Your task to perform on an android device: see creations saved in the google photos Image 0: 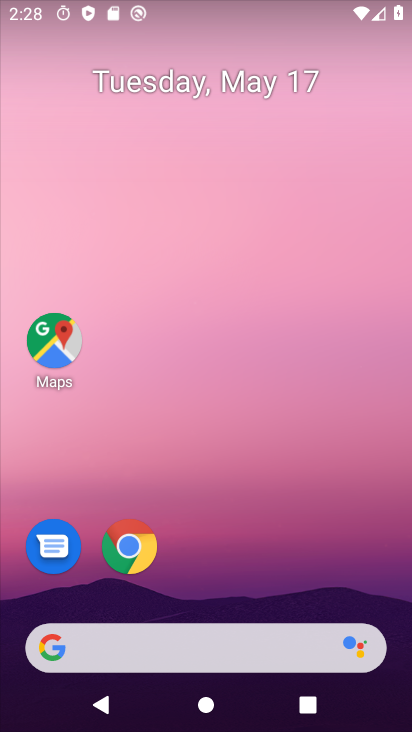
Step 0: drag from (265, 615) to (229, 1)
Your task to perform on an android device: see creations saved in the google photos Image 1: 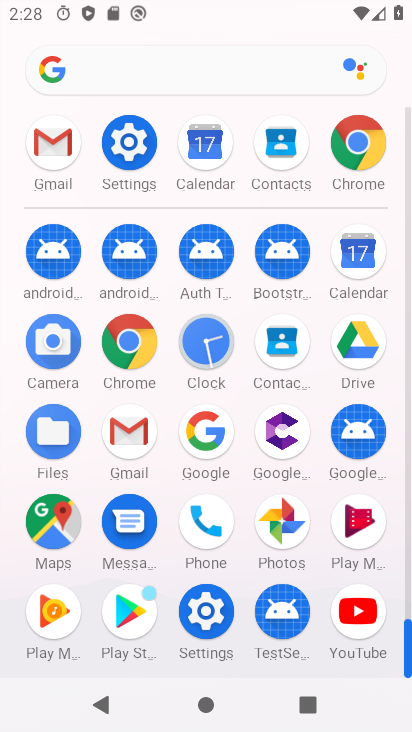
Step 1: click (286, 532)
Your task to perform on an android device: see creations saved in the google photos Image 2: 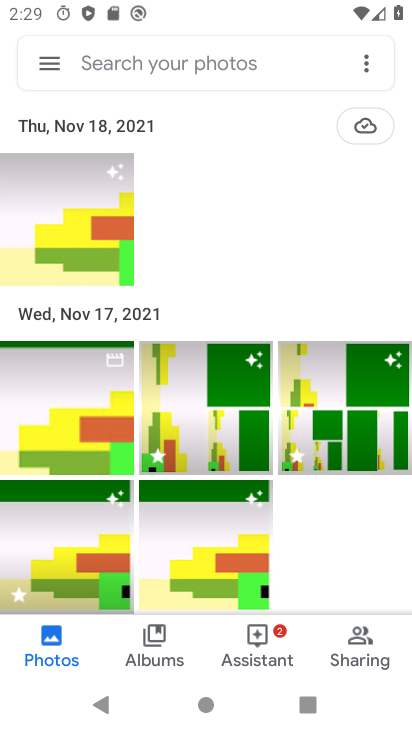
Step 2: task complete